Your task to perform on an android device: Go to accessibility settings Image 0: 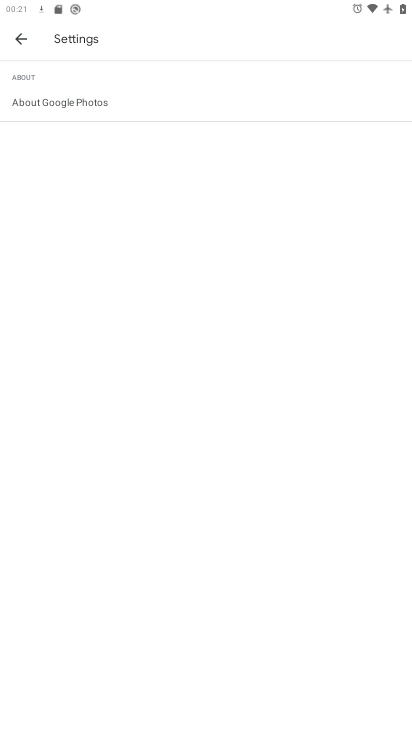
Step 0: press home button
Your task to perform on an android device: Go to accessibility settings Image 1: 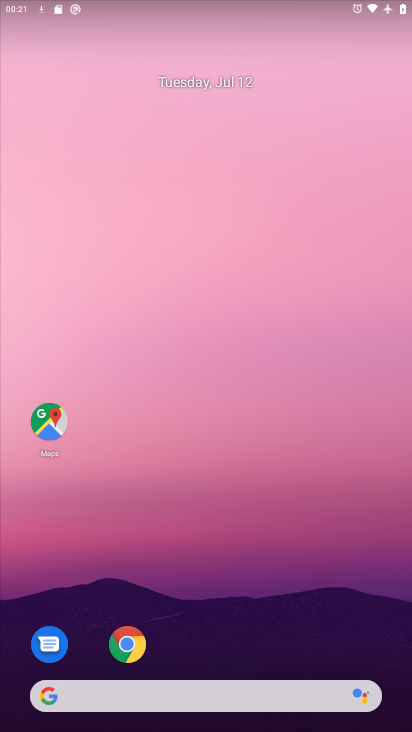
Step 1: drag from (256, 655) to (256, 145)
Your task to perform on an android device: Go to accessibility settings Image 2: 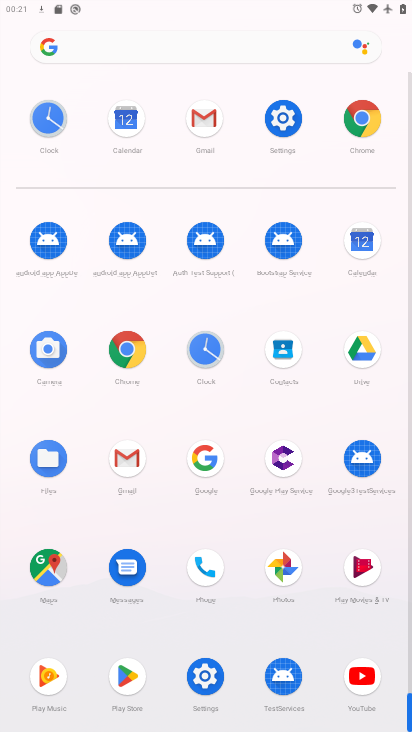
Step 2: click (270, 125)
Your task to perform on an android device: Go to accessibility settings Image 3: 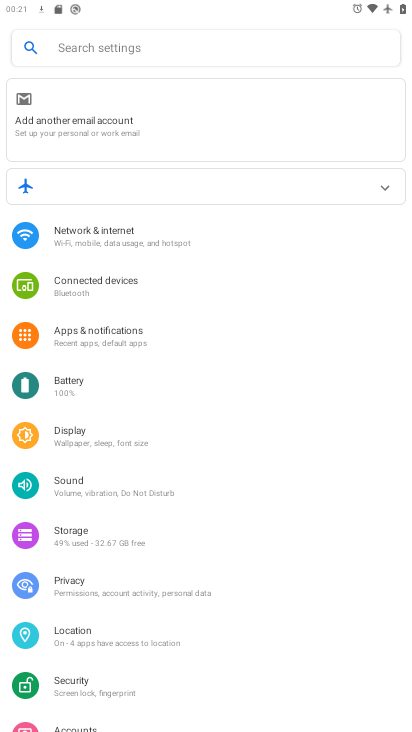
Step 3: drag from (104, 674) to (218, 237)
Your task to perform on an android device: Go to accessibility settings Image 4: 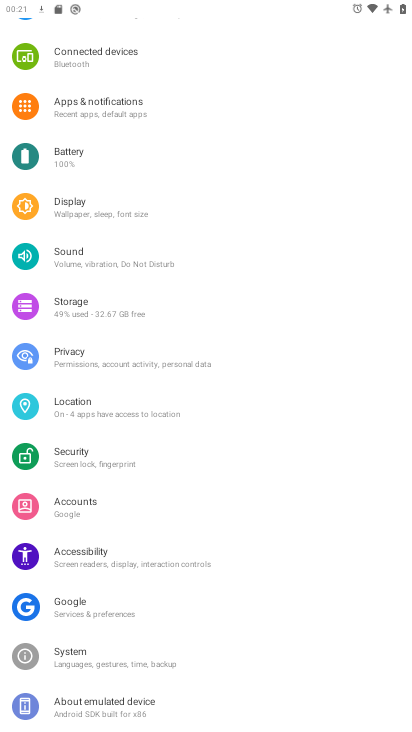
Step 4: click (101, 544)
Your task to perform on an android device: Go to accessibility settings Image 5: 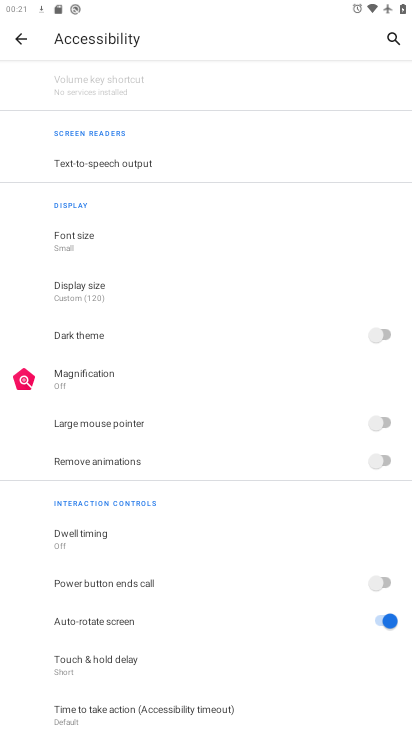
Step 5: task complete